Your task to perform on an android device: Set the phone to "Do not disturb". Image 0: 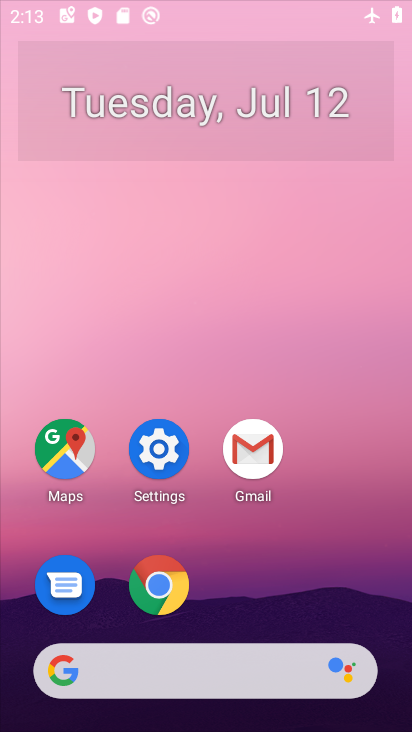
Step 0: click (75, 206)
Your task to perform on an android device: Set the phone to "Do not disturb". Image 1: 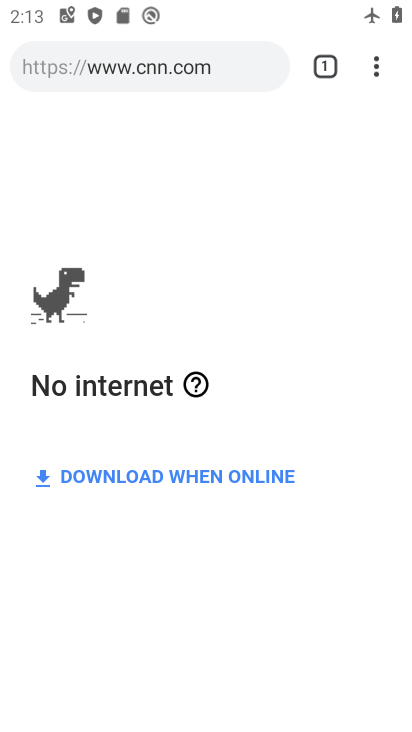
Step 1: press home button
Your task to perform on an android device: Set the phone to "Do not disturb". Image 2: 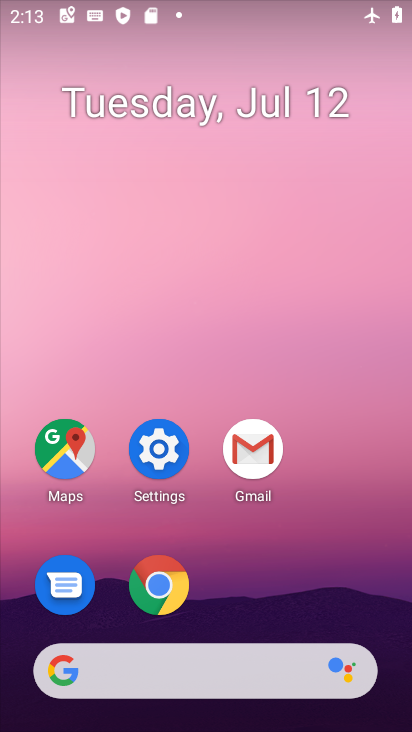
Step 2: click (167, 455)
Your task to perform on an android device: Set the phone to "Do not disturb". Image 3: 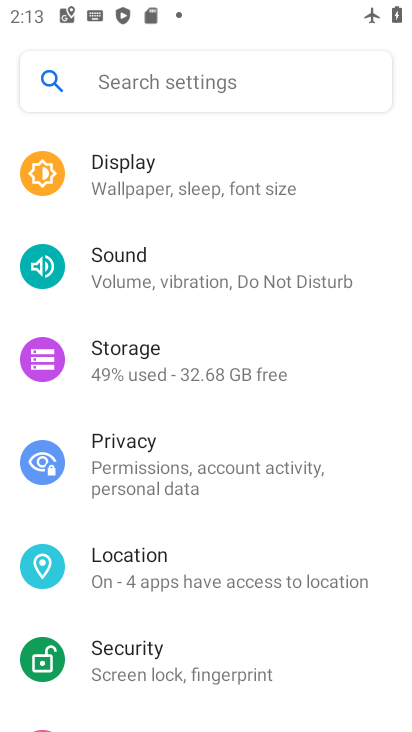
Step 3: drag from (189, 671) to (177, 248)
Your task to perform on an android device: Set the phone to "Do not disturb". Image 4: 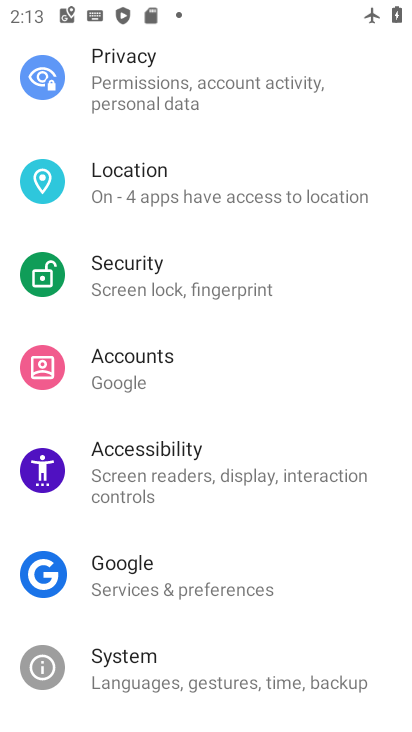
Step 4: drag from (196, 657) to (175, 284)
Your task to perform on an android device: Set the phone to "Do not disturb". Image 5: 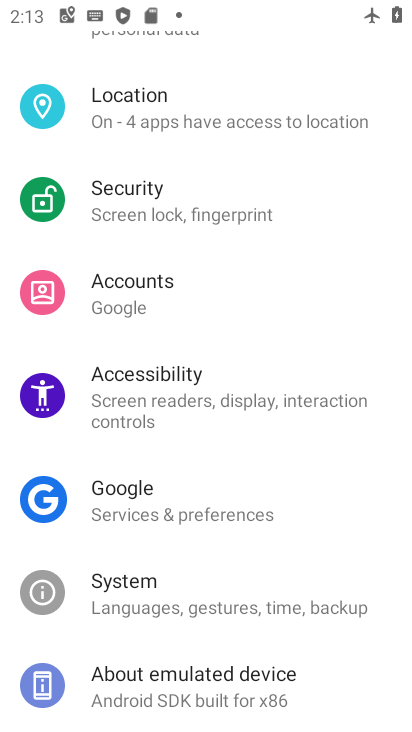
Step 5: drag from (229, 237) to (279, 664)
Your task to perform on an android device: Set the phone to "Do not disturb". Image 6: 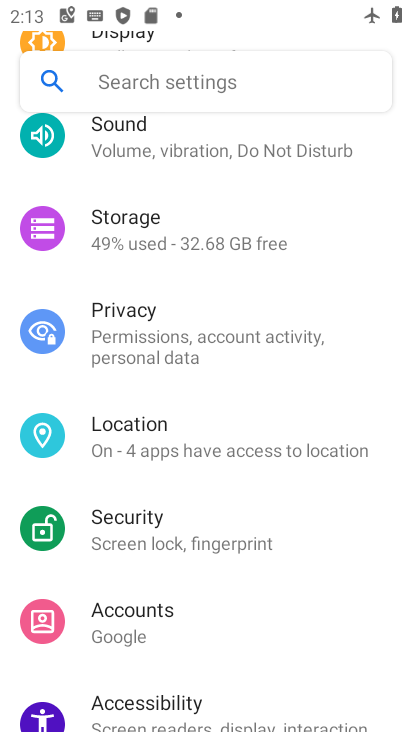
Step 6: drag from (220, 252) to (266, 603)
Your task to perform on an android device: Set the phone to "Do not disturb". Image 7: 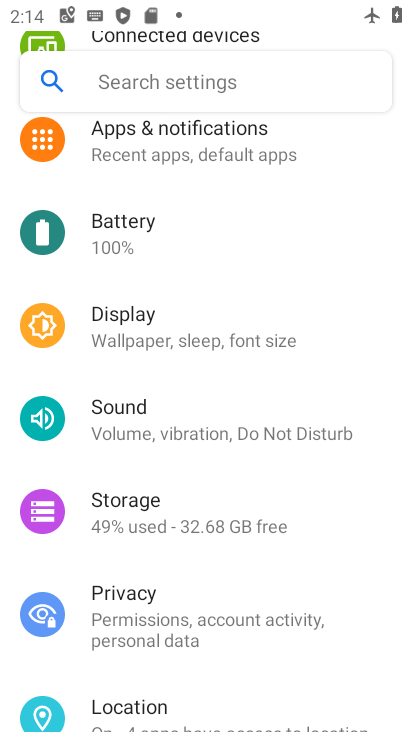
Step 7: click (117, 423)
Your task to perform on an android device: Set the phone to "Do not disturb". Image 8: 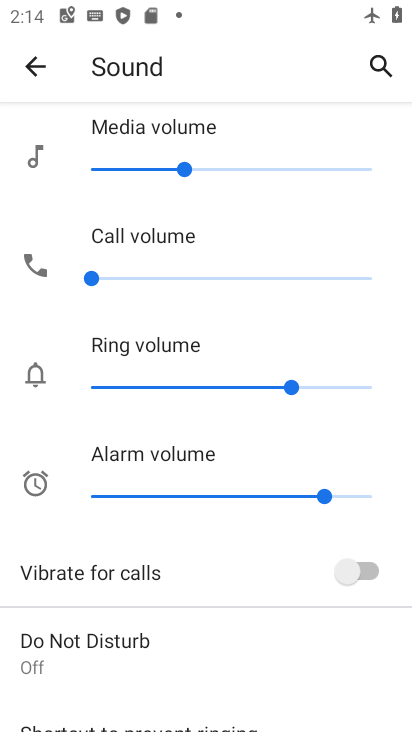
Step 8: click (87, 642)
Your task to perform on an android device: Set the phone to "Do not disturb". Image 9: 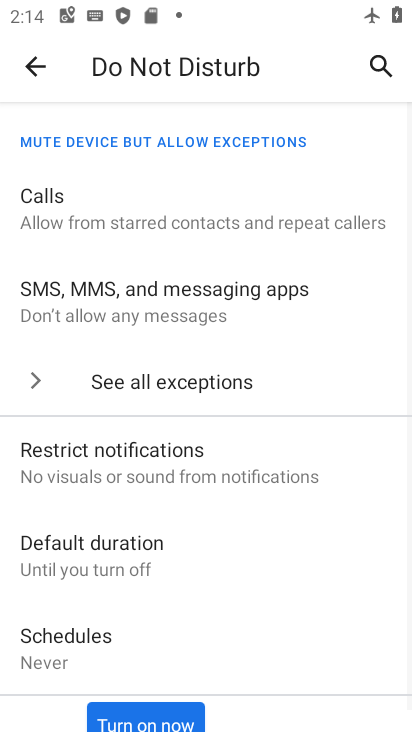
Step 9: click (119, 719)
Your task to perform on an android device: Set the phone to "Do not disturb". Image 10: 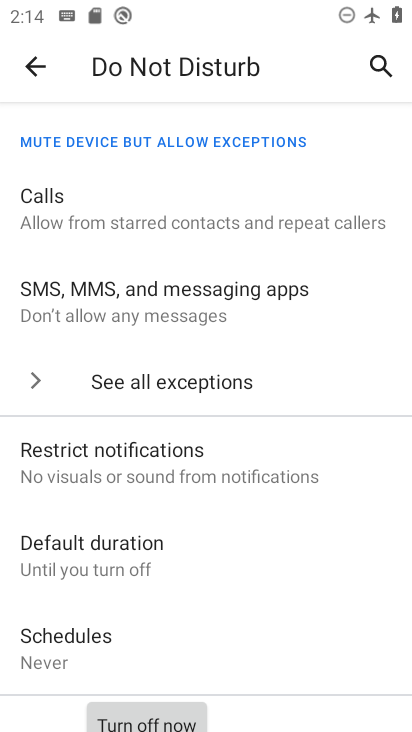
Step 10: click (119, 719)
Your task to perform on an android device: Set the phone to "Do not disturb". Image 11: 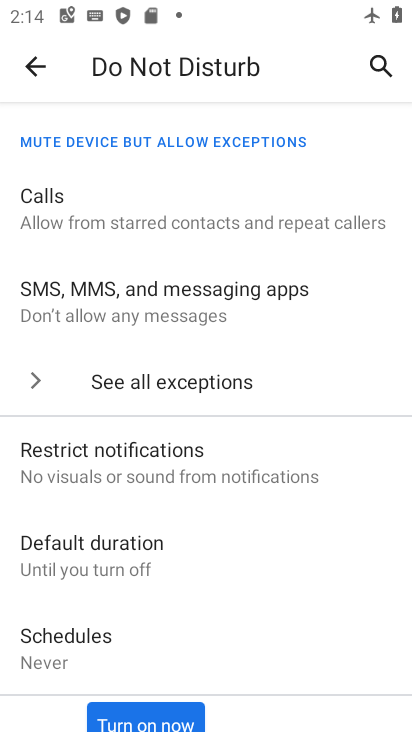
Step 11: click (181, 712)
Your task to perform on an android device: Set the phone to "Do not disturb". Image 12: 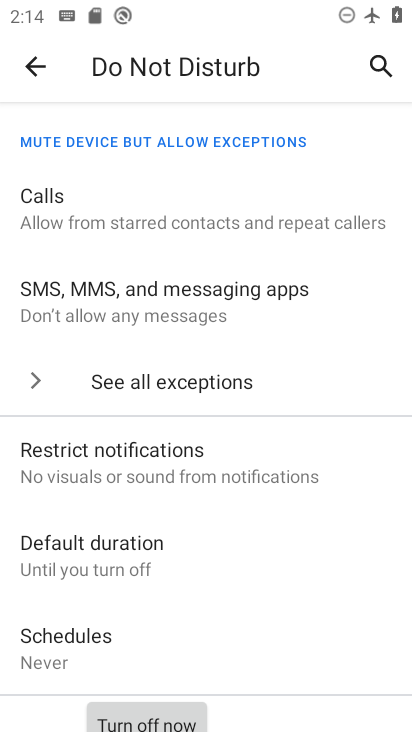
Step 12: click (36, 69)
Your task to perform on an android device: Set the phone to "Do not disturb". Image 13: 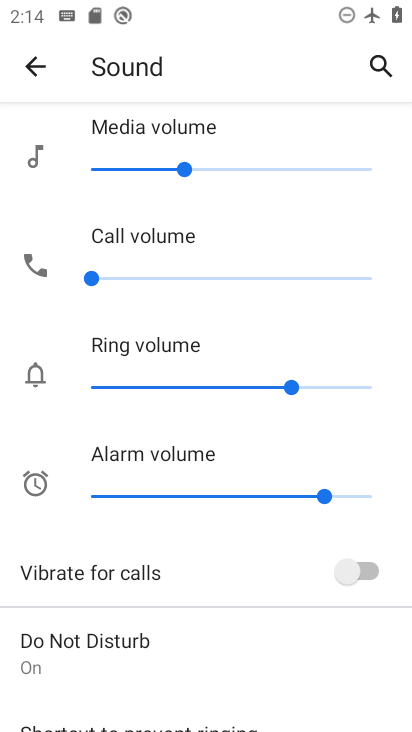
Step 13: task complete